Your task to perform on an android device: set an alarm Image 0: 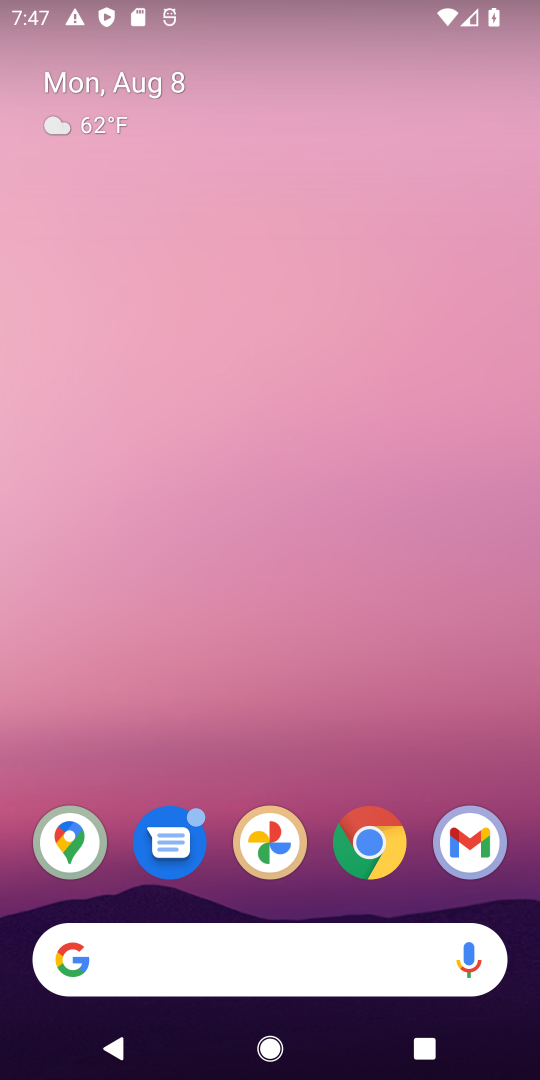
Step 0: drag from (531, 1039) to (479, 352)
Your task to perform on an android device: set an alarm Image 1: 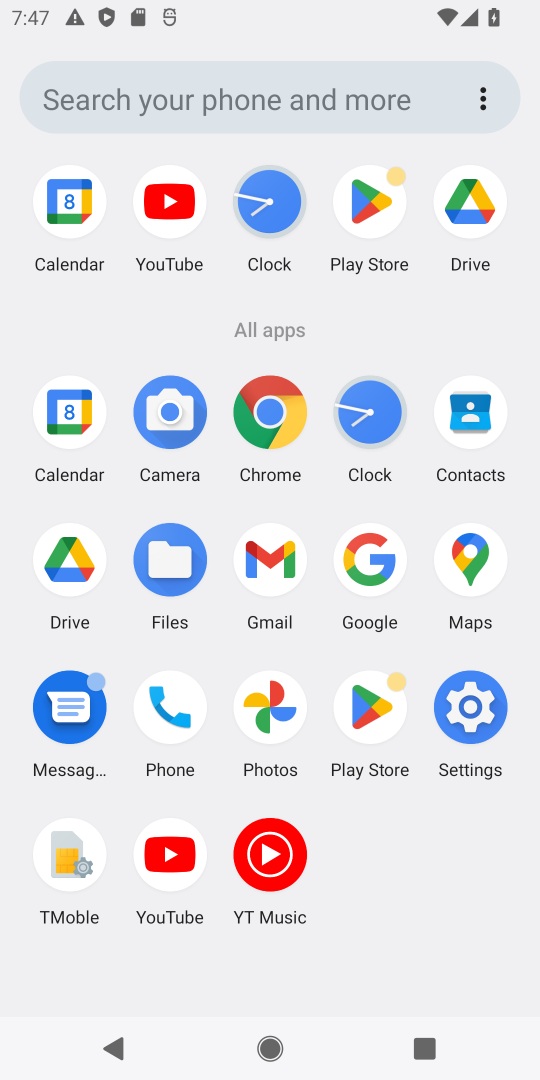
Step 1: click (382, 428)
Your task to perform on an android device: set an alarm Image 2: 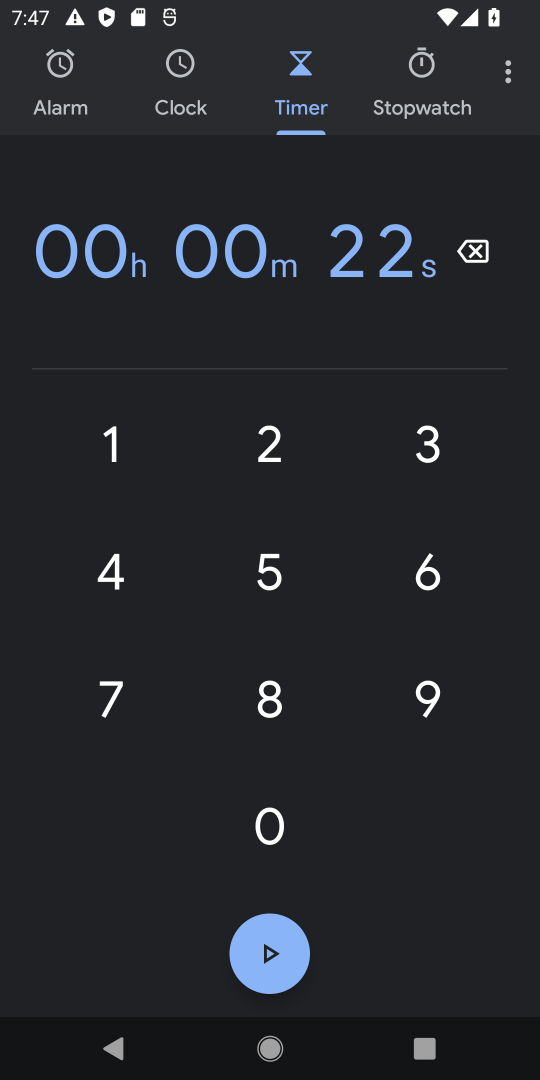
Step 2: click (50, 89)
Your task to perform on an android device: set an alarm Image 3: 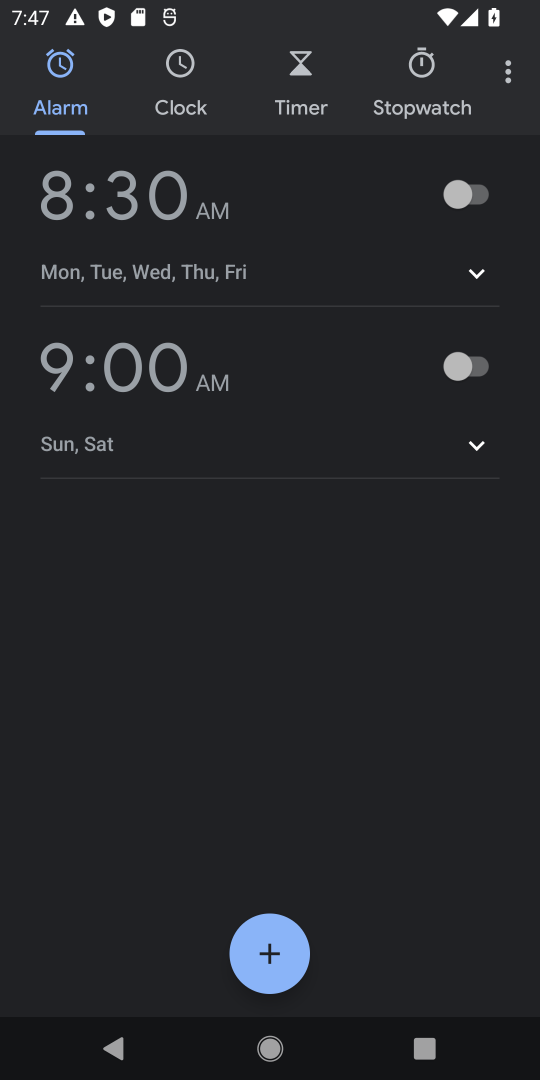
Step 3: click (483, 194)
Your task to perform on an android device: set an alarm Image 4: 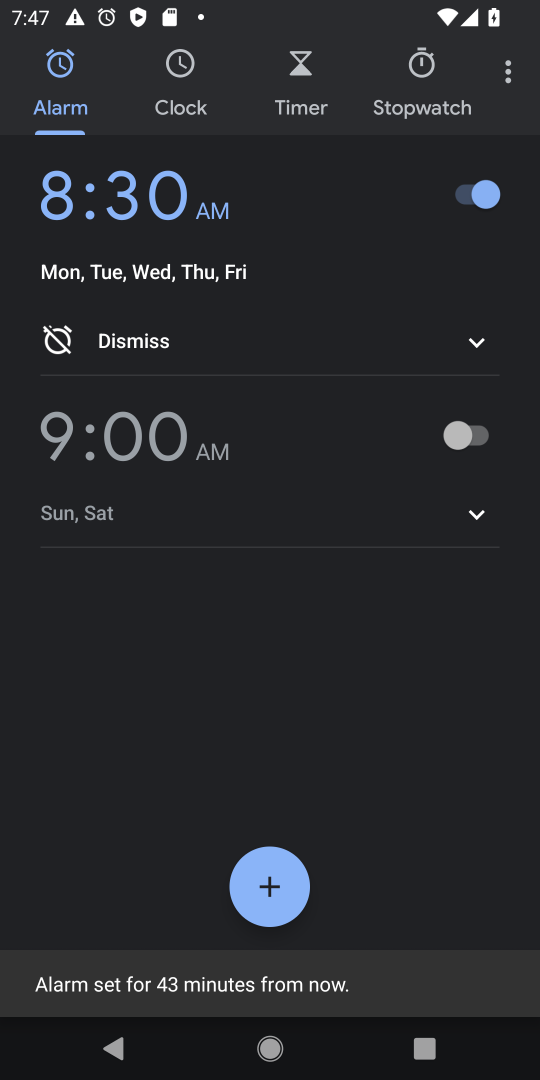
Step 4: task complete